Your task to perform on an android device: Open Youtube and go to "Your channel" Image 0: 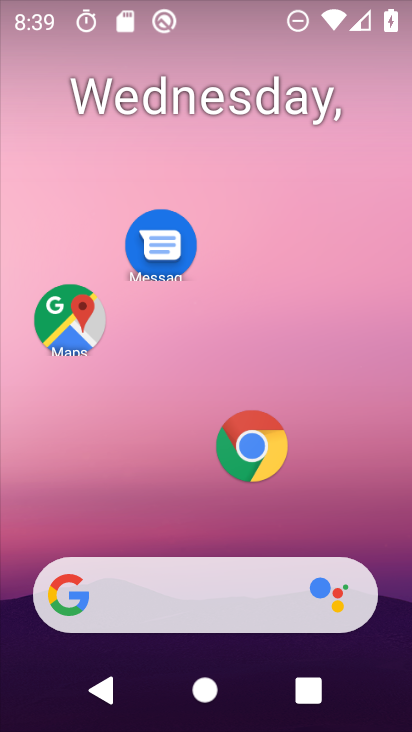
Step 0: drag from (206, 513) to (250, 26)
Your task to perform on an android device: Open Youtube and go to "Your channel" Image 1: 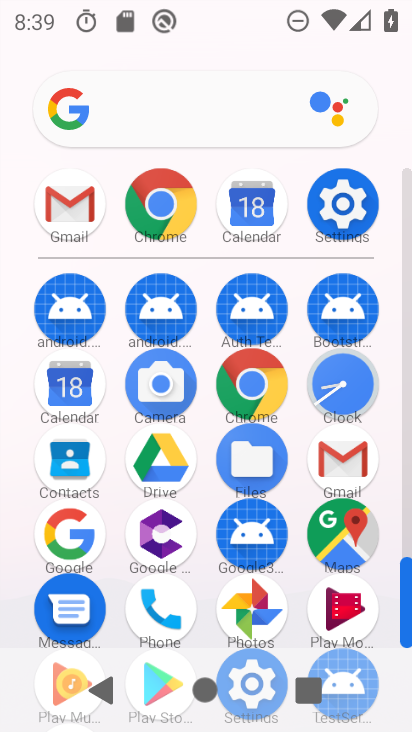
Step 1: drag from (229, 220) to (232, 125)
Your task to perform on an android device: Open Youtube and go to "Your channel" Image 2: 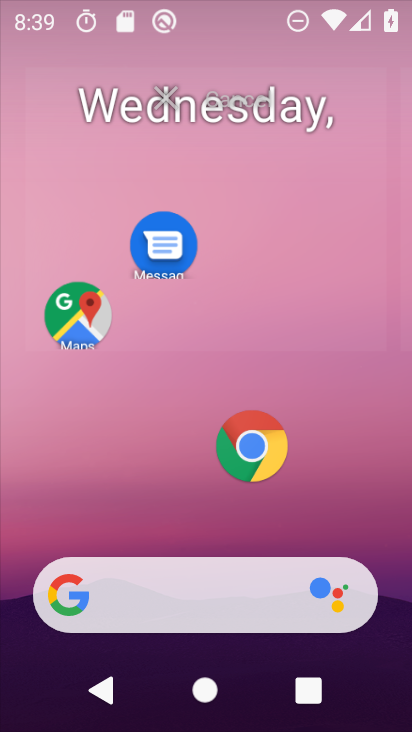
Step 2: click (213, 153)
Your task to perform on an android device: Open Youtube and go to "Your channel" Image 3: 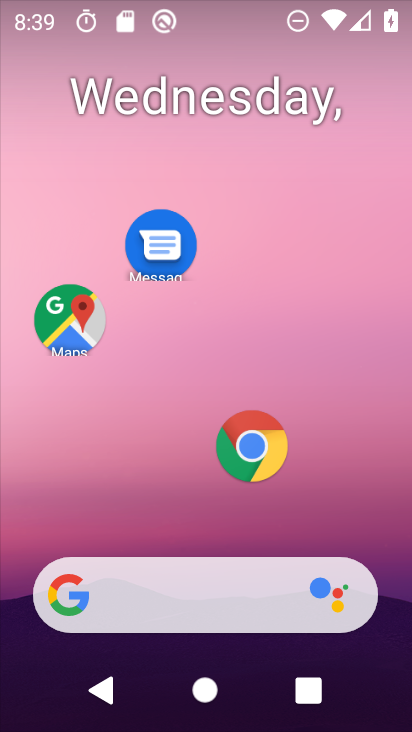
Step 3: drag from (312, 541) to (305, 129)
Your task to perform on an android device: Open Youtube and go to "Your channel" Image 4: 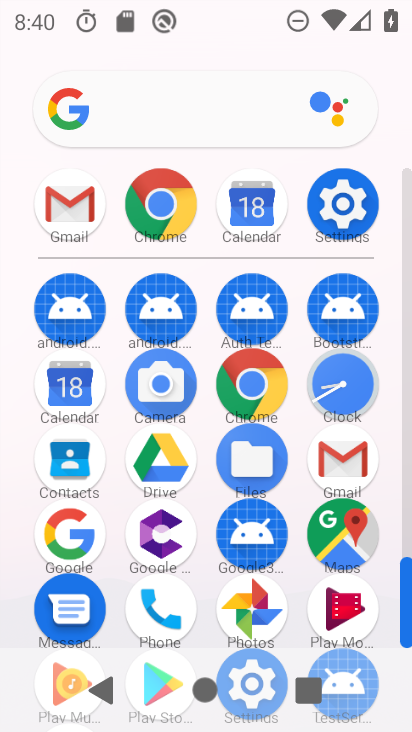
Step 4: drag from (201, 584) to (190, 227)
Your task to perform on an android device: Open Youtube and go to "Your channel" Image 5: 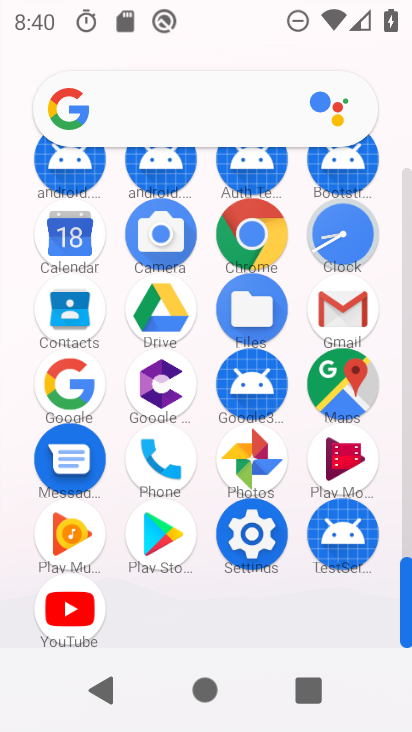
Step 5: click (67, 601)
Your task to perform on an android device: Open Youtube and go to "Your channel" Image 6: 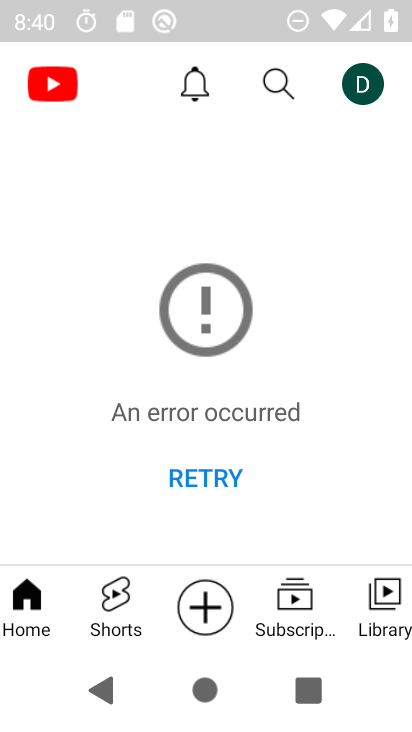
Step 6: click (369, 75)
Your task to perform on an android device: Open Youtube and go to "Your channel" Image 7: 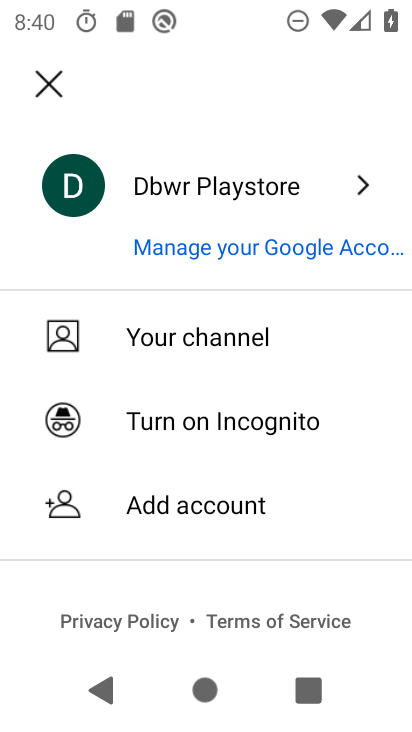
Step 7: click (192, 339)
Your task to perform on an android device: Open Youtube and go to "Your channel" Image 8: 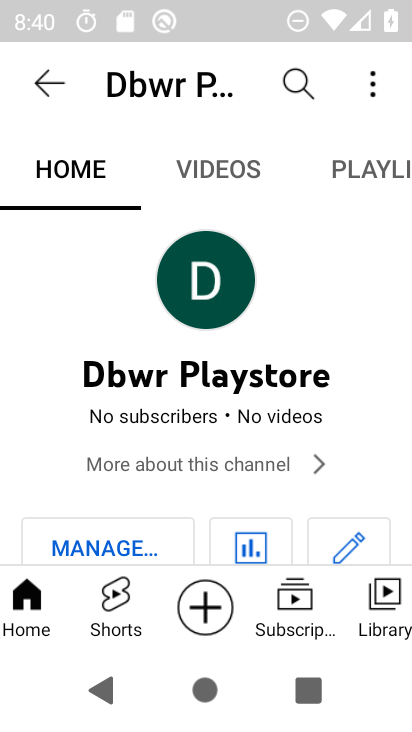
Step 8: task complete